Your task to perform on an android device: add a contact in the contacts app Image 0: 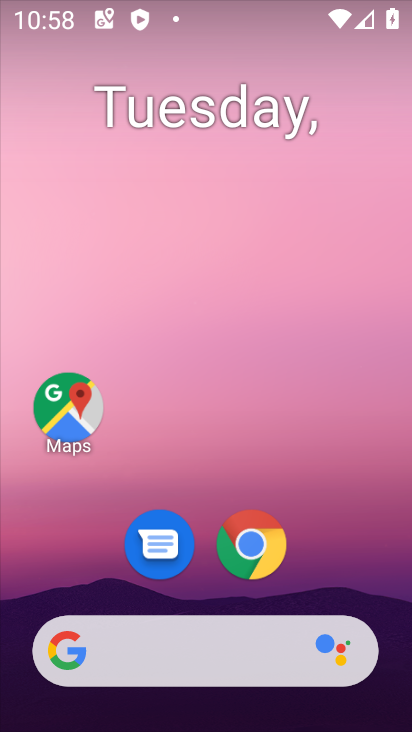
Step 0: drag from (396, 630) to (274, 81)
Your task to perform on an android device: add a contact in the contacts app Image 1: 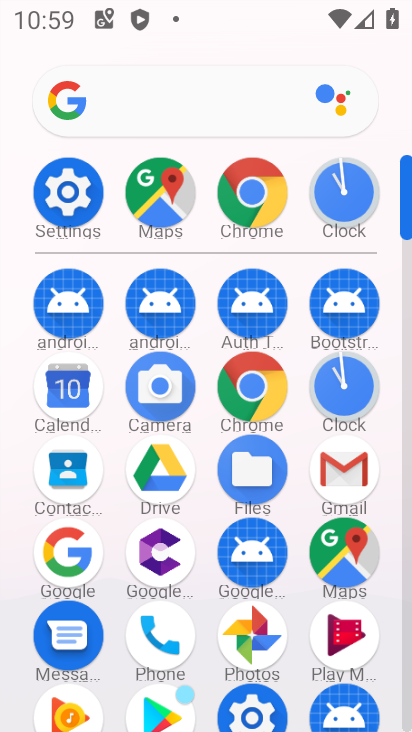
Step 1: click (44, 493)
Your task to perform on an android device: add a contact in the contacts app Image 2: 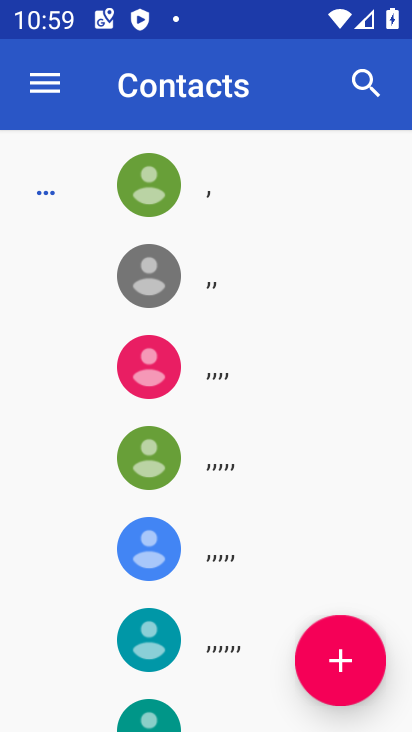
Step 2: click (349, 647)
Your task to perform on an android device: add a contact in the contacts app Image 3: 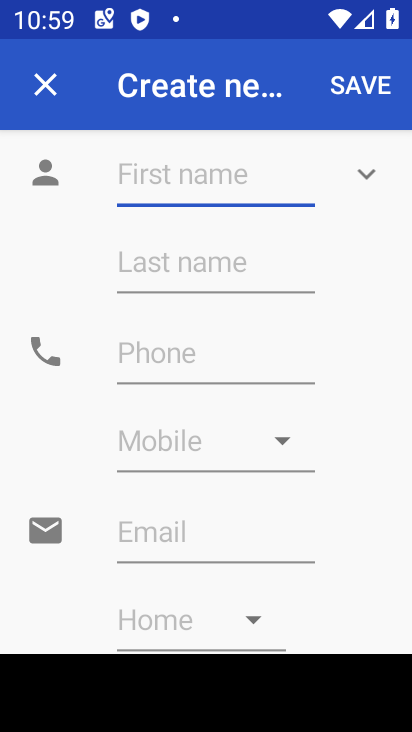
Step 3: type "birthday"
Your task to perform on an android device: add a contact in the contacts app Image 4: 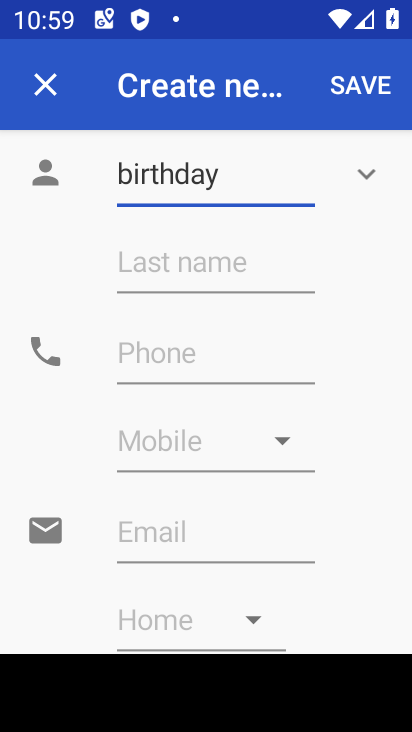
Step 4: click (365, 103)
Your task to perform on an android device: add a contact in the contacts app Image 5: 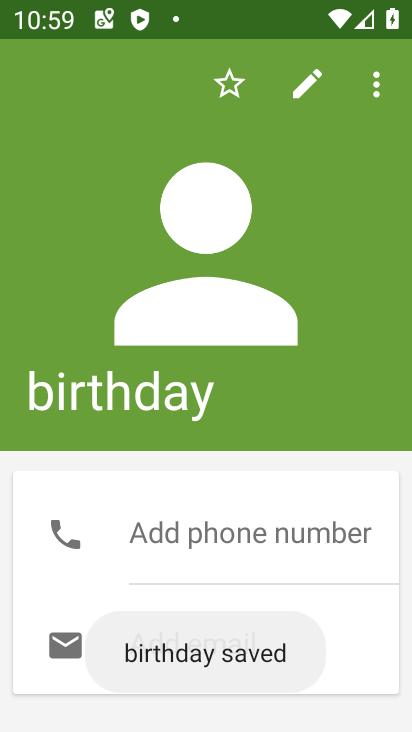
Step 5: task complete